Your task to perform on an android device: Open my contact list Image 0: 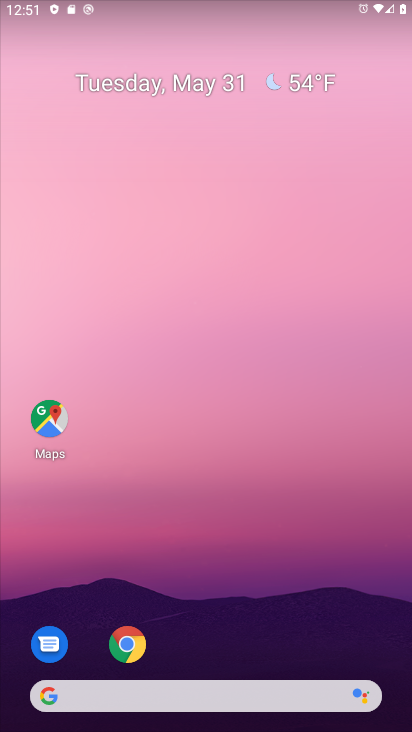
Step 0: press home button
Your task to perform on an android device: Open my contact list Image 1: 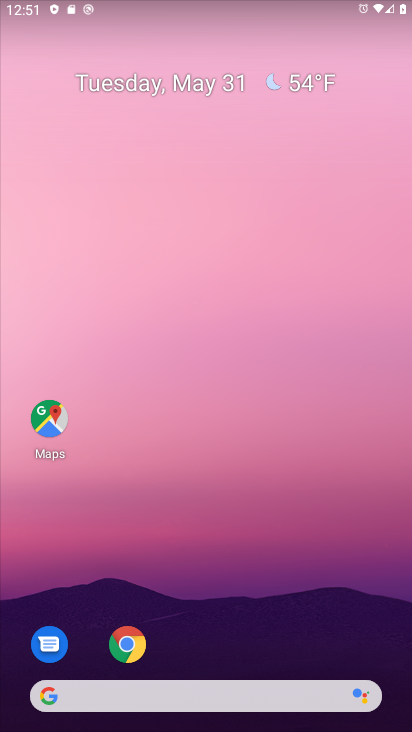
Step 1: drag from (241, 605) to (205, 196)
Your task to perform on an android device: Open my contact list Image 2: 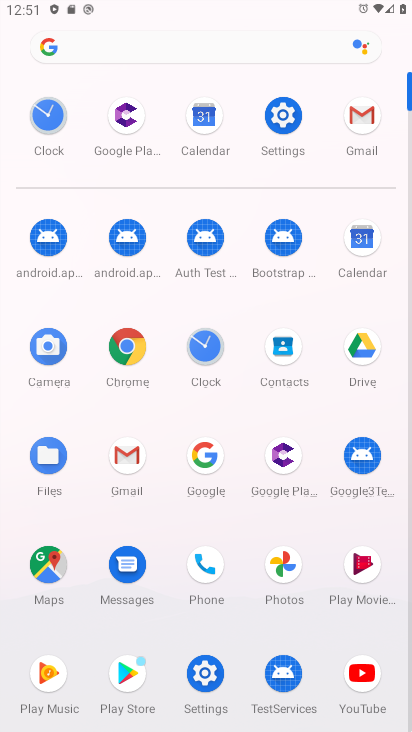
Step 2: drag from (371, 629) to (349, 154)
Your task to perform on an android device: Open my contact list Image 3: 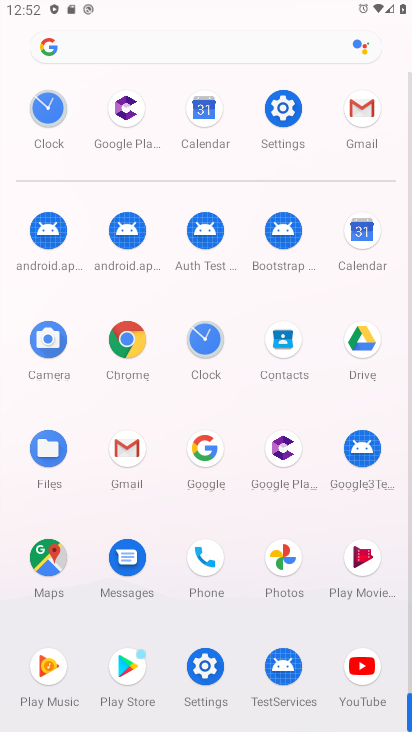
Step 3: click (285, 337)
Your task to perform on an android device: Open my contact list Image 4: 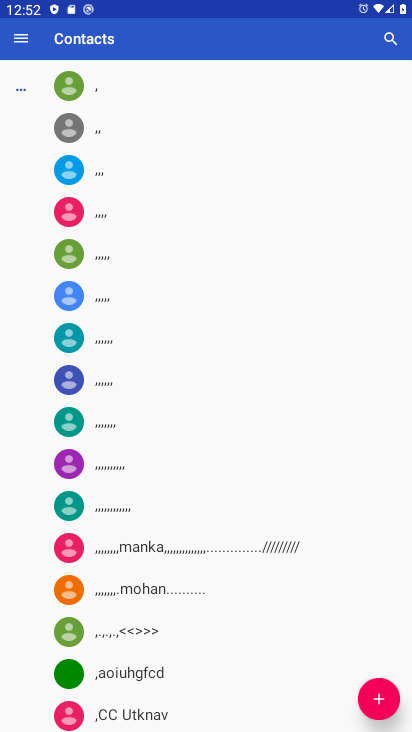
Step 4: task complete